Your task to perform on an android device: turn on translation in the chrome app Image 0: 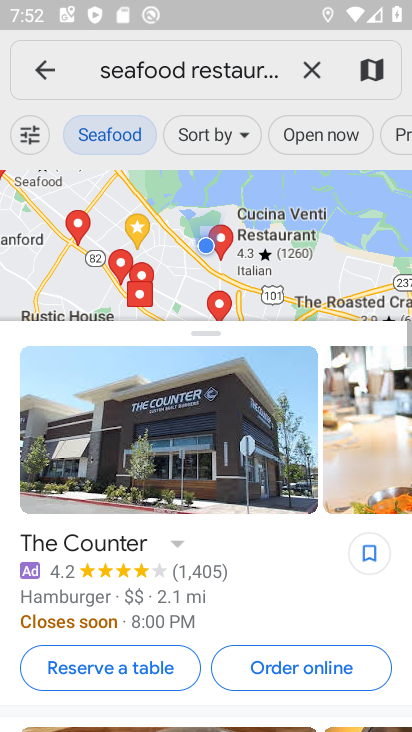
Step 0: drag from (328, 576) to (291, 217)
Your task to perform on an android device: turn on translation in the chrome app Image 1: 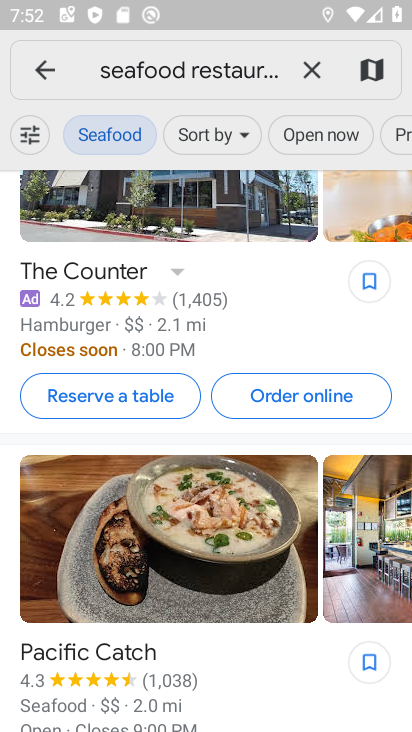
Step 1: press home button
Your task to perform on an android device: turn on translation in the chrome app Image 2: 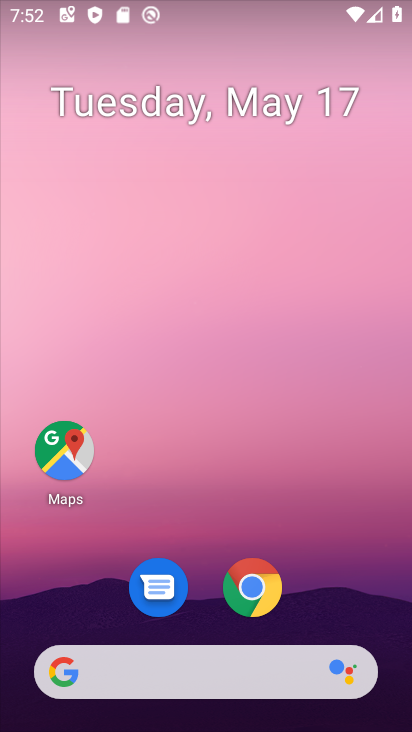
Step 2: click (258, 592)
Your task to perform on an android device: turn on translation in the chrome app Image 3: 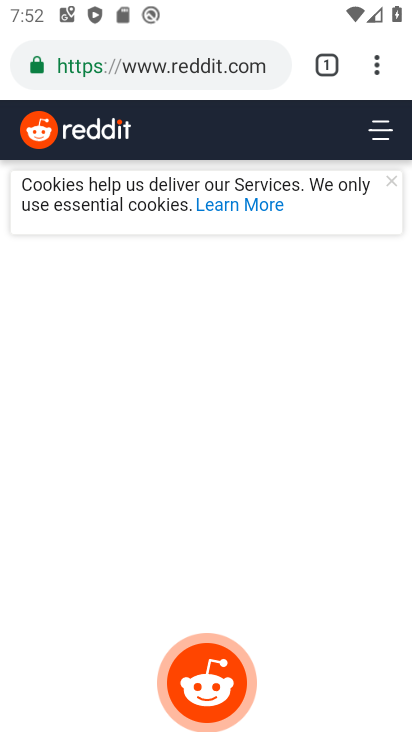
Step 3: drag from (385, 56) to (202, 628)
Your task to perform on an android device: turn on translation in the chrome app Image 4: 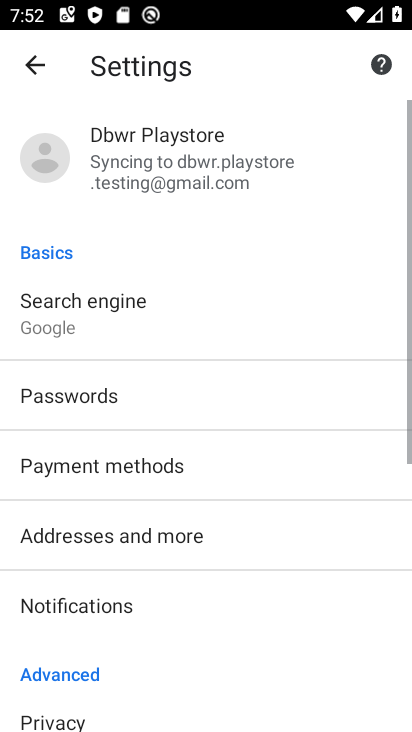
Step 4: drag from (194, 616) to (126, 281)
Your task to perform on an android device: turn on translation in the chrome app Image 5: 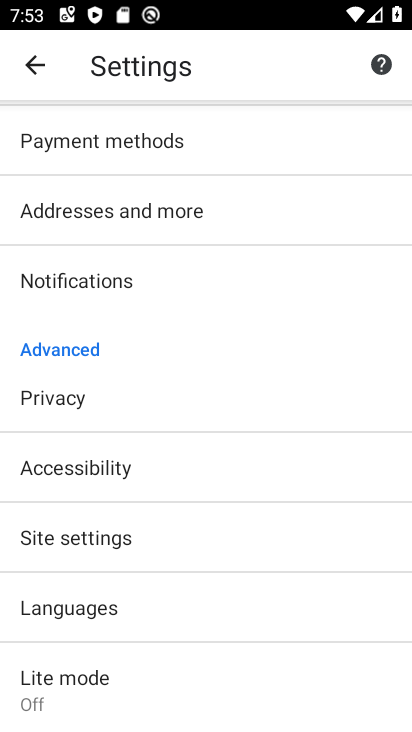
Step 5: drag from (162, 538) to (209, 388)
Your task to perform on an android device: turn on translation in the chrome app Image 6: 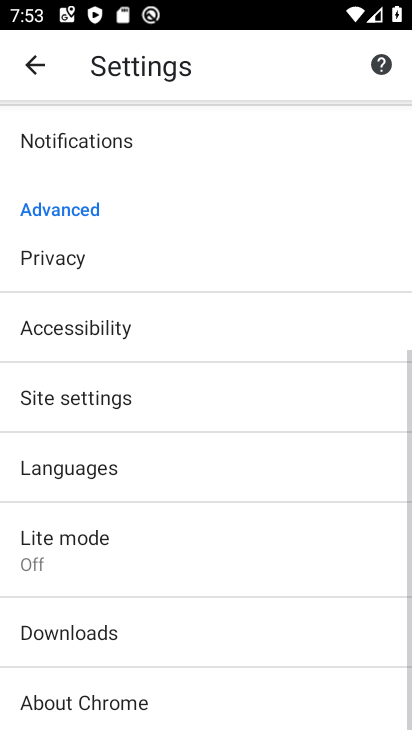
Step 6: click (91, 492)
Your task to perform on an android device: turn on translation in the chrome app Image 7: 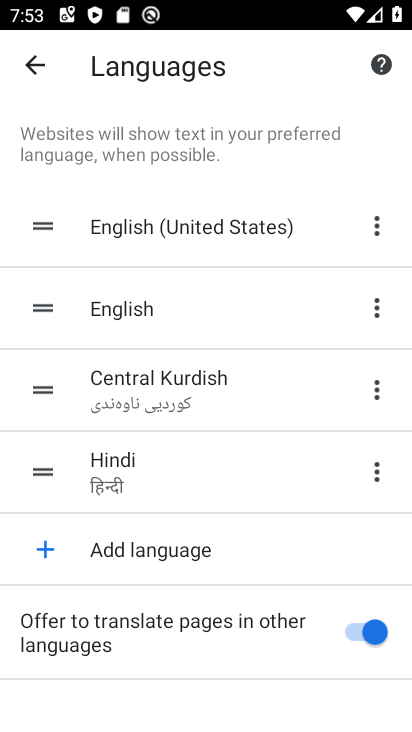
Step 7: task complete